Your task to perform on an android device: Go to display settings Image 0: 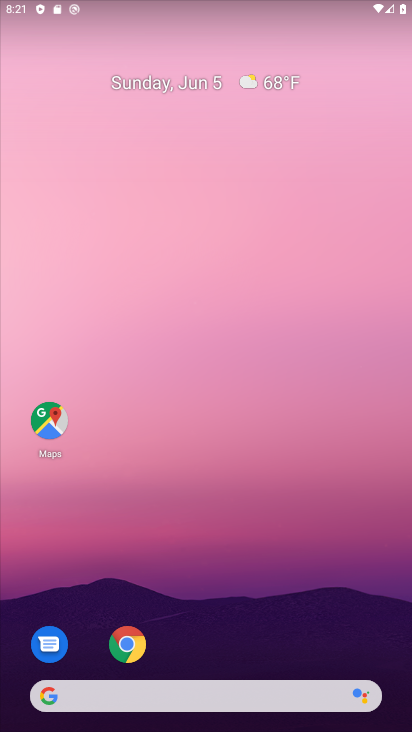
Step 0: task complete